Your task to perform on an android device: check the backup settings in the google photos Image 0: 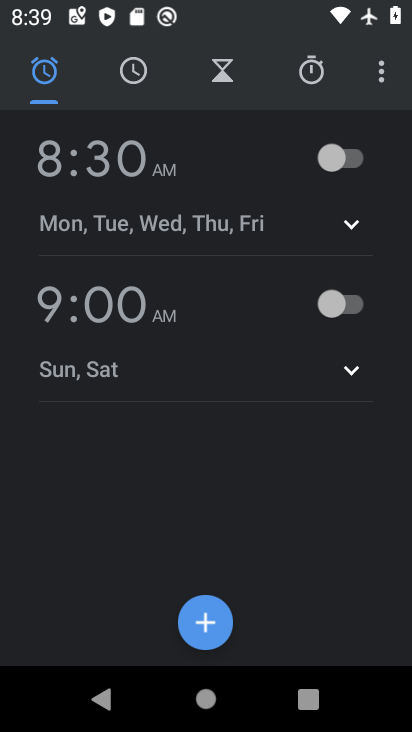
Step 0: press home button
Your task to perform on an android device: check the backup settings in the google photos Image 1: 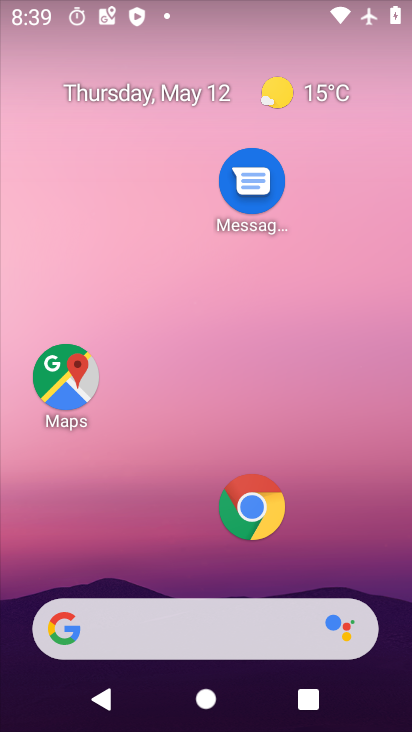
Step 1: drag from (322, 573) to (324, 8)
Your task to perform on an android device: check the backup settings in the google photos Image 2: 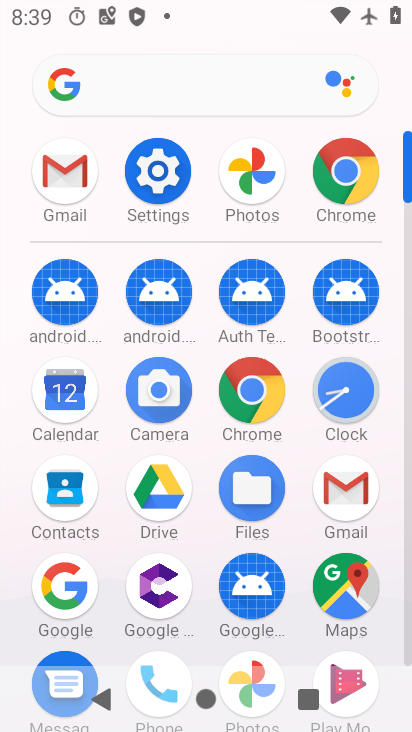
Step 2: click (242, 184)
Your task to perform on an android device: check the backup settings in the google photos Image 3: 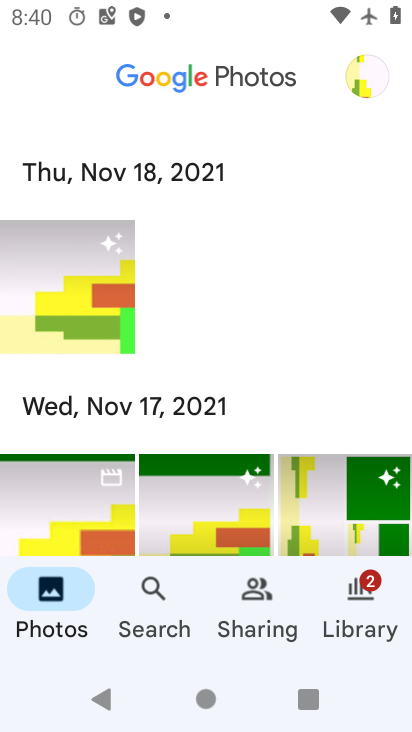
Step 3: click (358, 78)
Your task to perform on an android device: check the backup settings in the google photos Image 4: 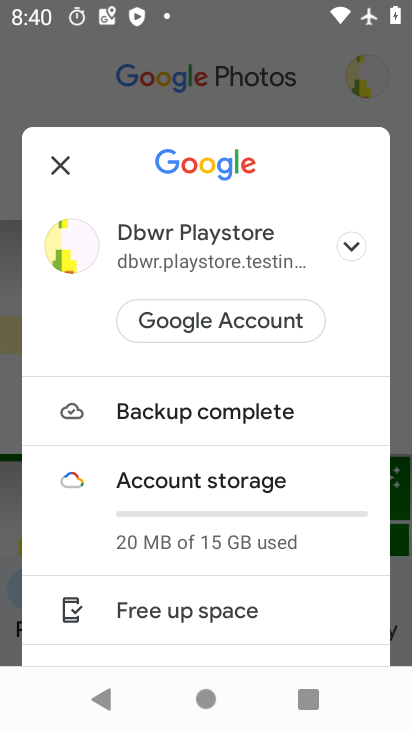
Step 4: drag from (182, 617) to (156, 326)
Your task to perform on an android device: check the backup settings in the google photos Image 5: 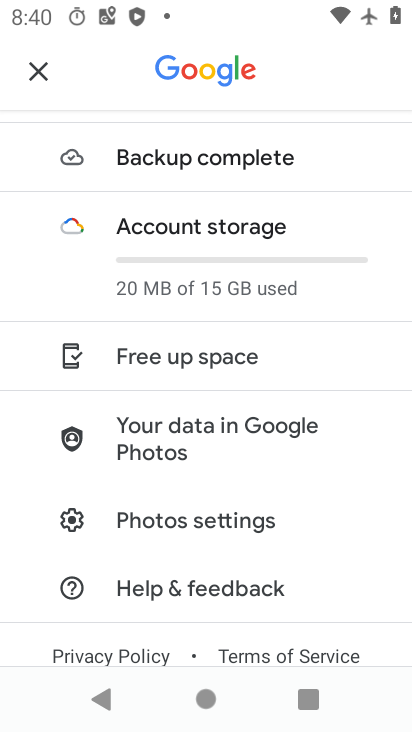
Step 5: click (153, 519)
Your task to perform on an android device: check the backup settings in the google photos Image 6: 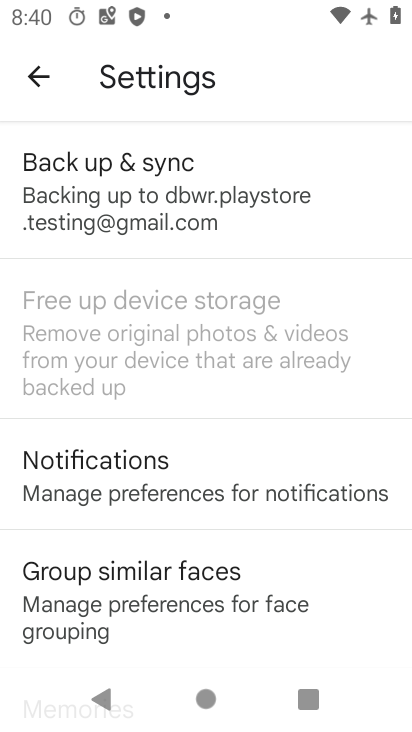
Step 6: click (70, 219)
Your task to perform on an android device: check the backup settings in the google photos Image 7: 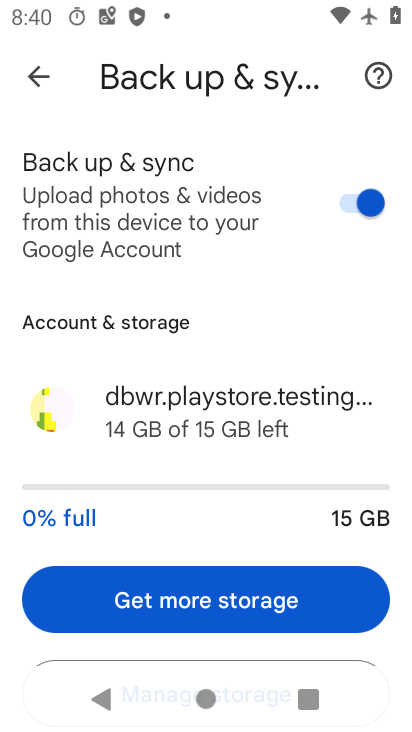
Step 7: task complete